Your task to perform on an android device: delete the emails in spam in the gmail app Image 0: 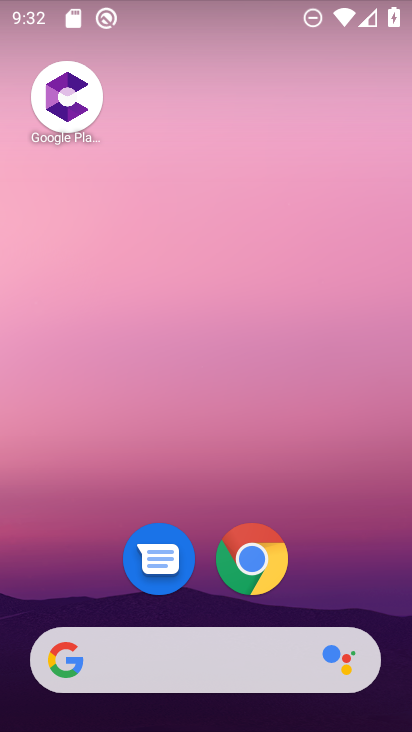
Step 0: drag from (384, 643) to (342, 309)
Your task to perform on an android device: delete the emails in spam in the gmail app Image 1: 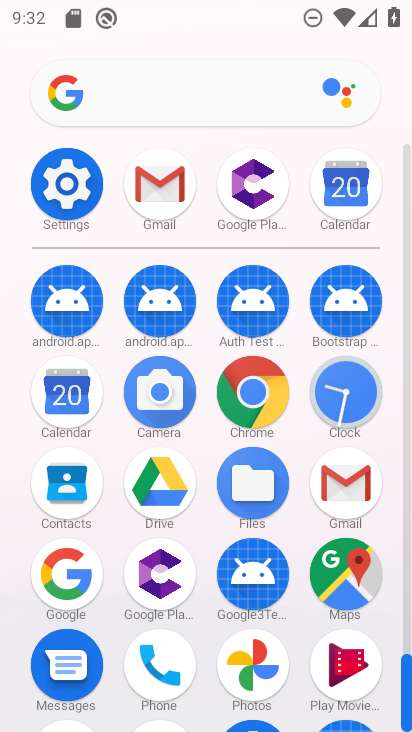
Step 1: click (350, 485)
Your task to perform on an android device: delete the emails in spam in the gmail app Image 2: 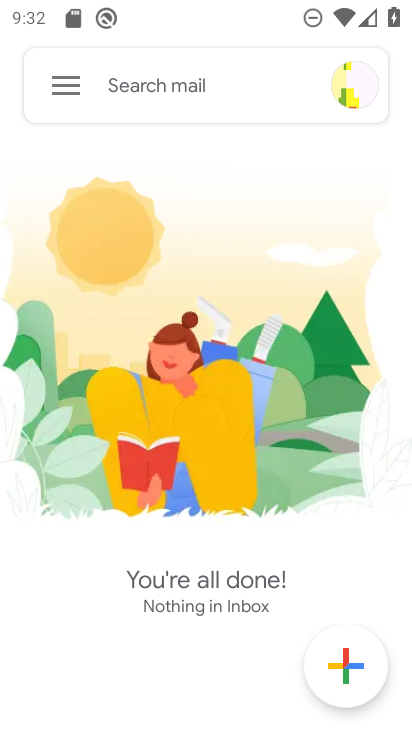
Step 2: click (57, 86)
Your task to perform on an android device: delete the emails in spam in the gmail app Image 3: 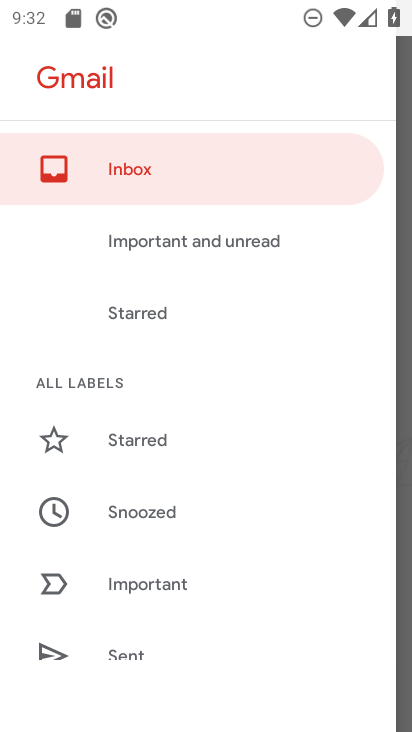
Step 3: drag from (316, 484) to (287, 279)
Your task to perform on an android device: delete the emails in spam in the gmail app Image 4: 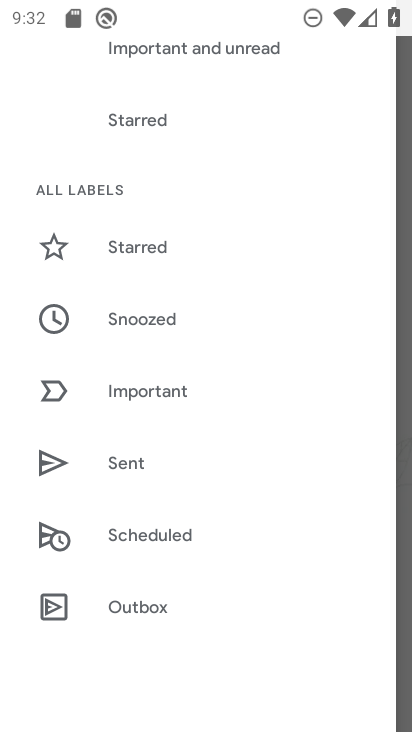
Step 4: drag from (284, 580) to (254, 346)
Your task to perform on an android device: delete the emails in spam in the gmail app Image 5: 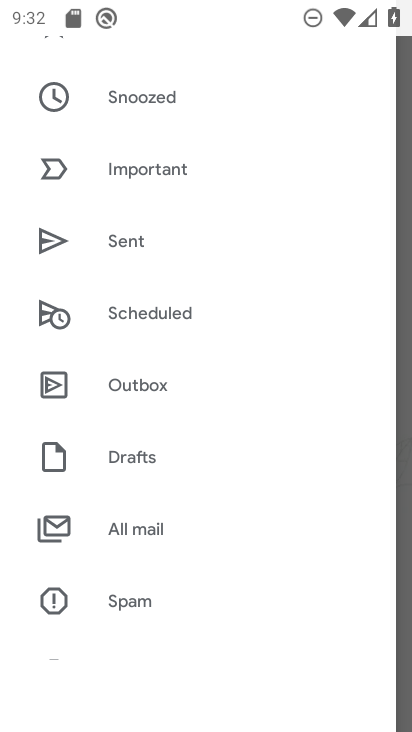
Step 5: click (120, 606)
Your task to perform on an android device: delete the emails in spam in the gmail app Image 6: 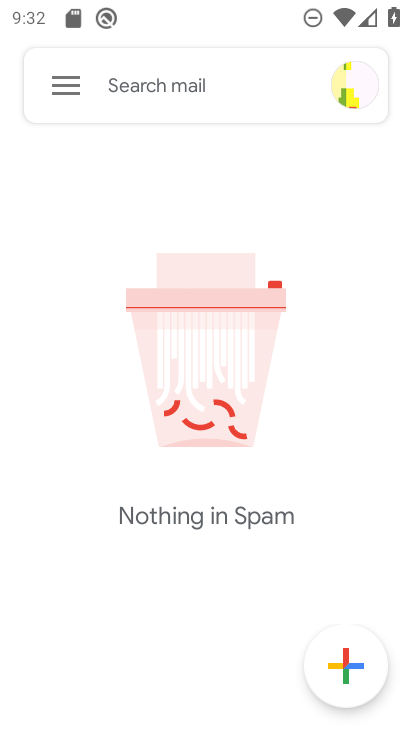
Step 6: task complete